Your task to perform on an android device: Open location settings Image 0: 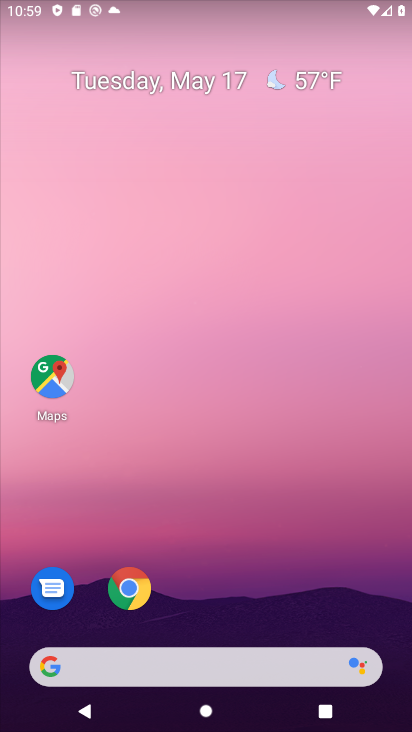
Step 0: drag from (231, 536) to (231, 176)
Your task to perform on an android device: Open location settings Image 1: 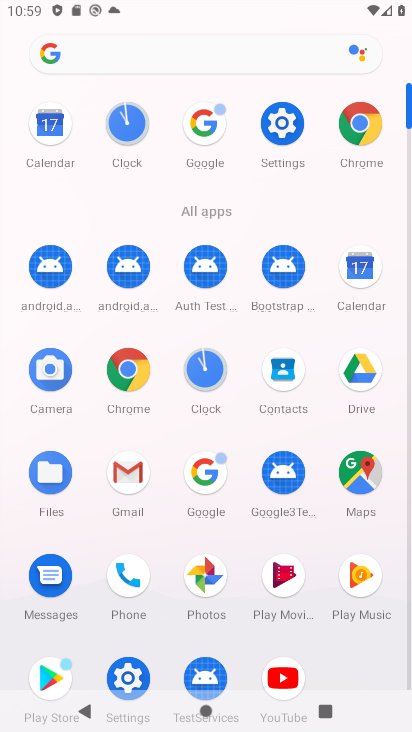
Step 1: click (284, 126)
Your task to perform on an android device: Open location settings Image 2: 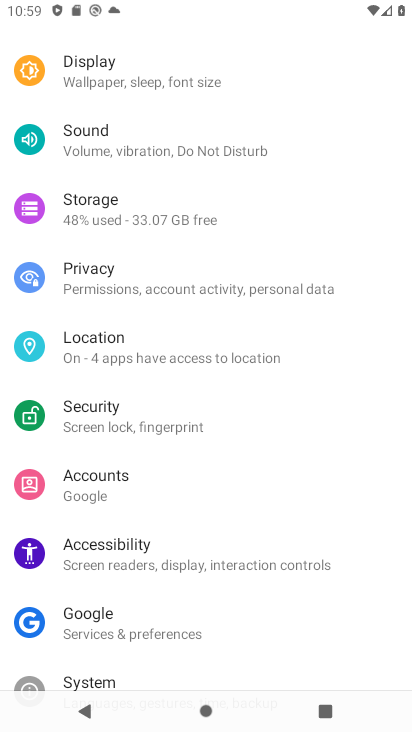
Step 2: click (161, 354)
Your task to perform on an android device: Open location settings Image 3: 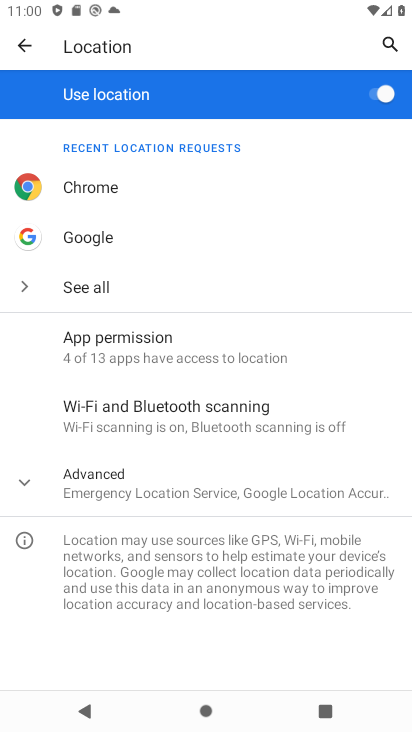
Step 3: task complete